Your task to perform on an android device: star an email in the gmail app Image 0: 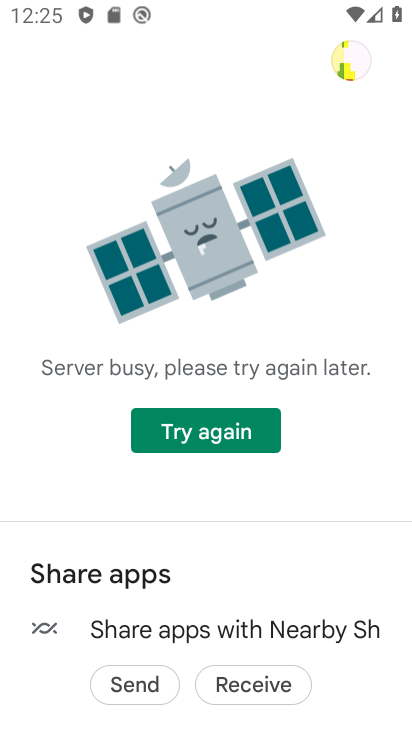
Step 0: press back button
Your task to perform on an android device: star an email in the gmail app Image 1: 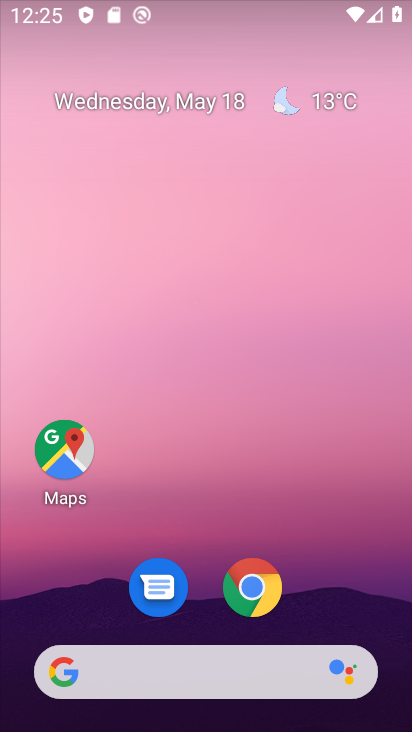
Step 1: drag from (203, 596) to (203, 52)
Your task to perform on an android device: star an email in the gmail app Image 2: 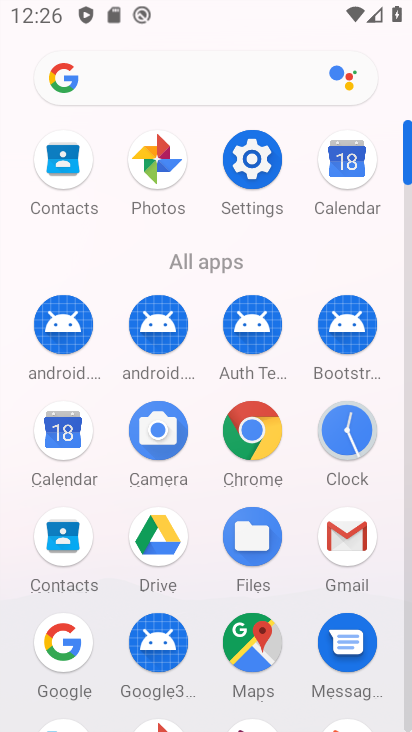
Step 2: click (344, 540)
Your task to perform on an android device: star an email in the gmail app Image 3: 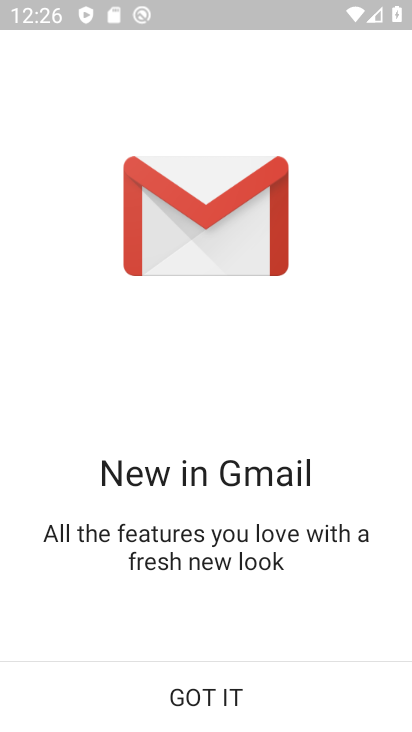
Step 3: click (187, 709)
Your task to perform on an android device: star an email in the gmail app Image 4: 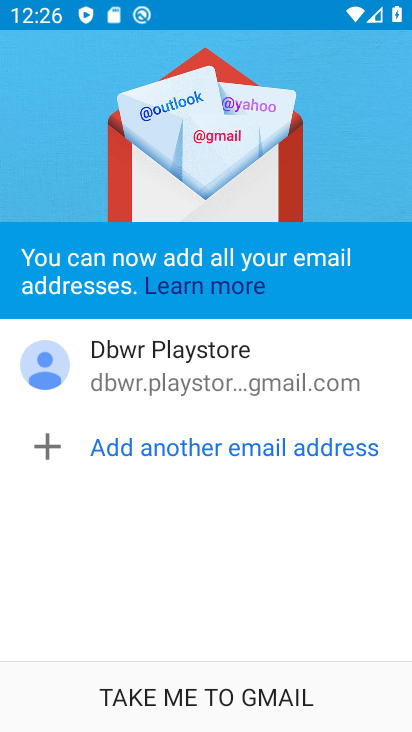
Step 4: click (187, 692)
Your task to perform on an android device: star an email in the gmail app Image 5: 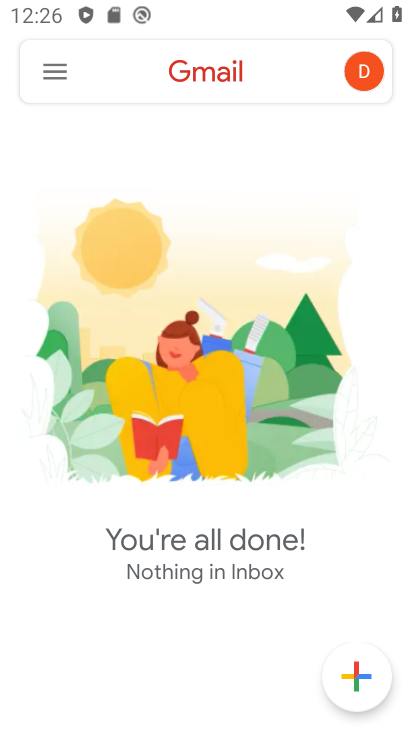
Step 5: click (55, 70)
Your task to perform on an android device: star an email in the gmail app Image 6: 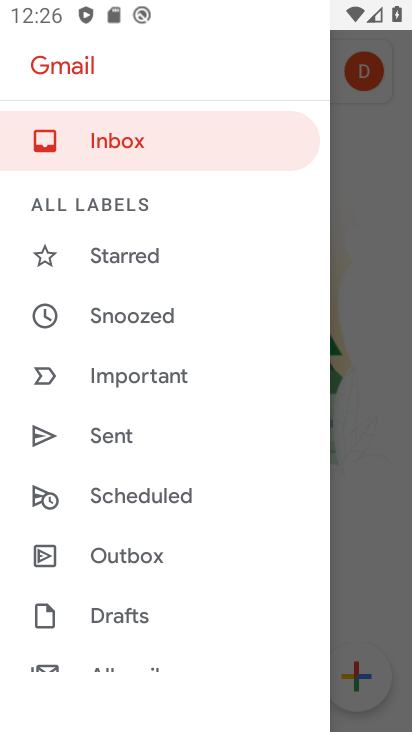
Step 6: drag from (180, 593) to (222, 239)
Your task to perform on an android device: star an email in the gmail app Image 7: 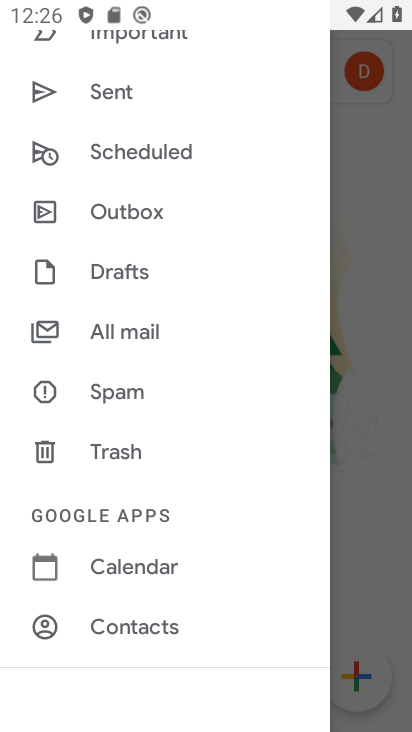
Step 7: click (165, 325)
Your task to perform on an android device: star an email in the gmail app Image 8: 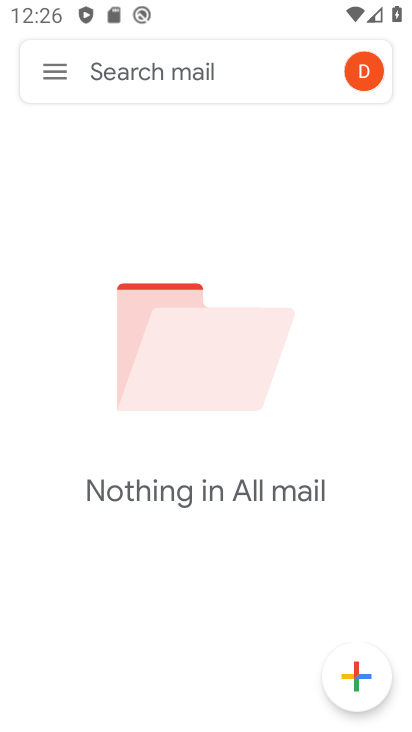
Step 8: task complete